Your task to perform on an android device: What's the weather? Image 0: 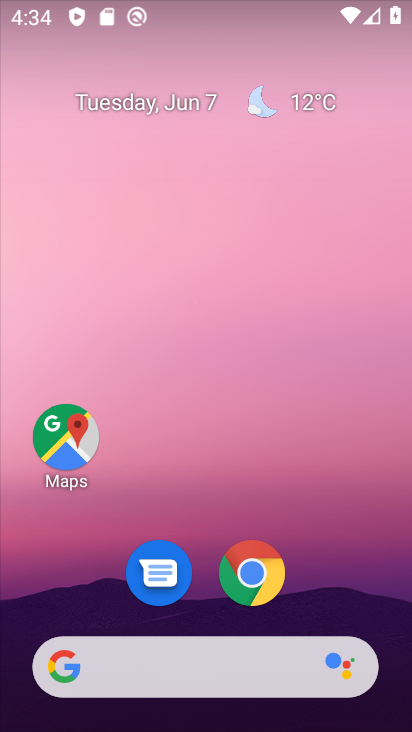
Step 0: drag from (182, 578) to (176, 262)
Your task to perform on an android device: What's the weather? Image 1: 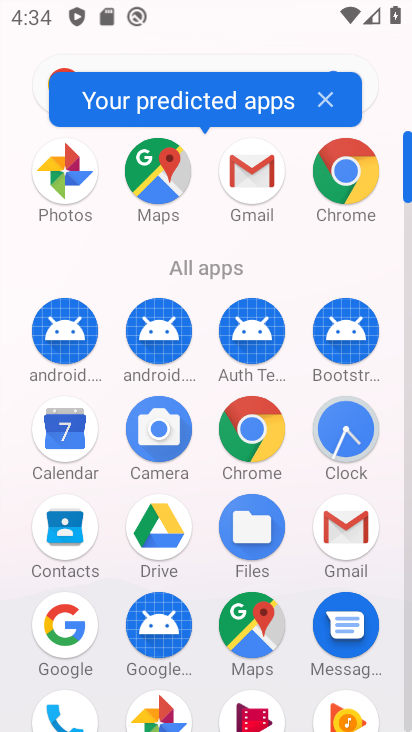
Step 1: click (60, 624)
Your task to perform on an android device: What's the weather? Image 2: 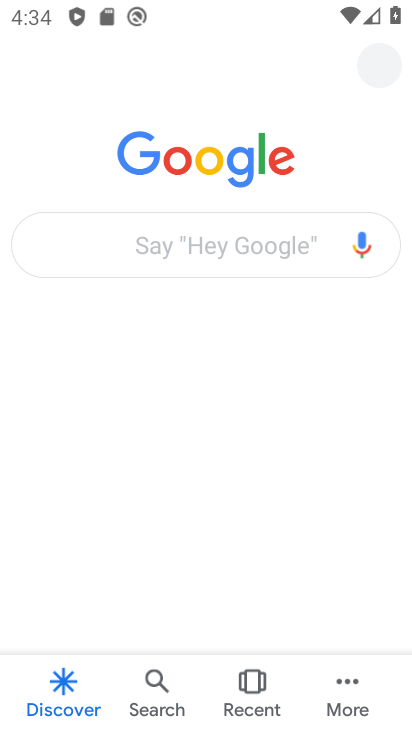
Step 2: click (140, 242)
Your task to perform on an android device: What's the weather? Image 3: 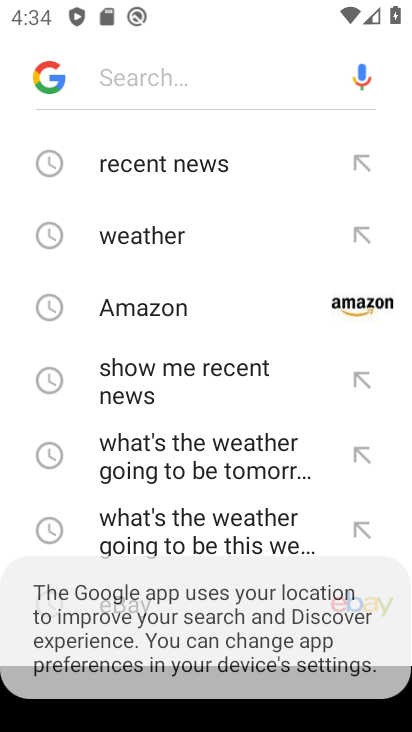
Step 3: click (148, 245)
Your task to perform on an android device: What's the weather? Image 4: 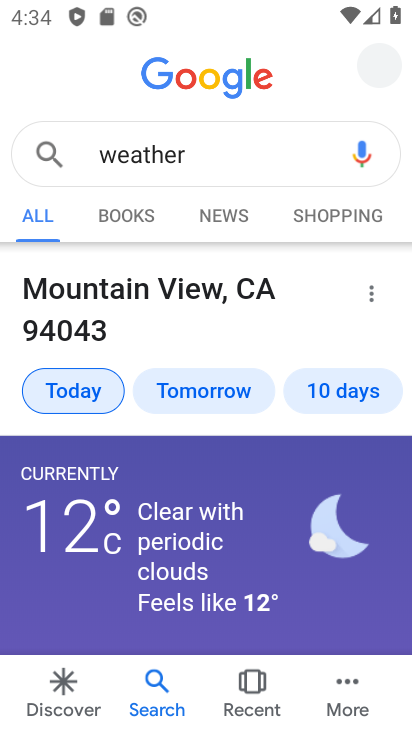
Step 4: task complete